Your task to perform on an android device: empty trash in the gmail app Image 0: 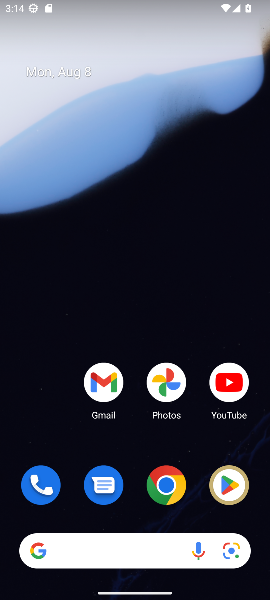
Step 0: drag from (114, 566) to (111, 76)
Your task to perform on an android device: empty trash in the gmail app Image 1: 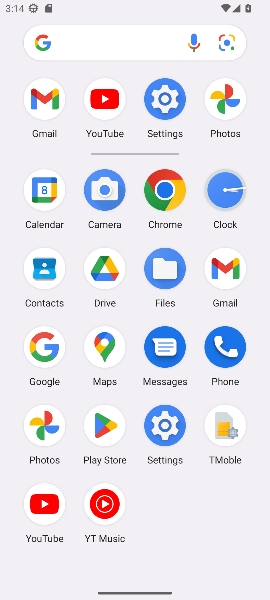
Step 1: click (223, 271)
Your task to perform on an android device: empty trash in the gmail app Image 2: 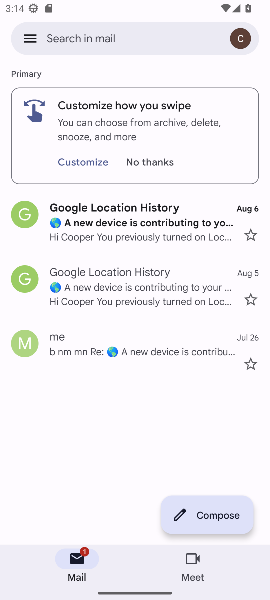
Step 2: click (36, 39)
Your task to perform on an android device: empty trash in the gmail app Image 3: 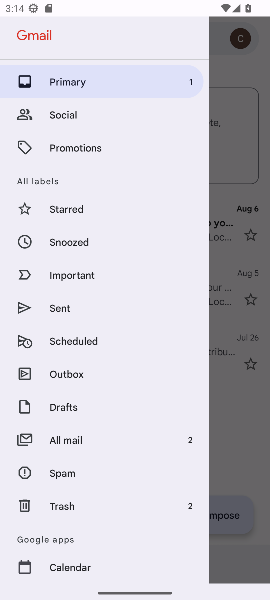
Step 3: click (59, 499)
Your task to perform on an android device: empty trash in the gmail app Image 4: 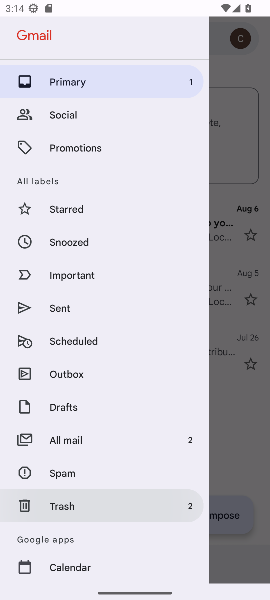
Step 4: click (60, 499)
Your task to perform on an android device: empty trash in the gmail app Image 5: 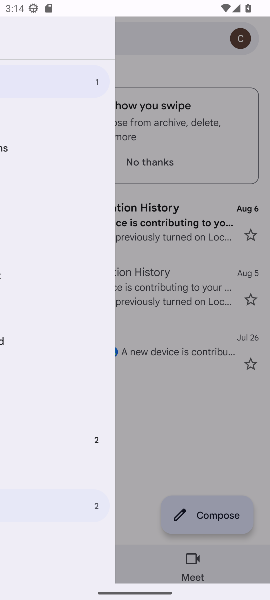
Step 5: click (64, 503)
Your task to perform on an android device: empty trash in the gmail app Image 6: 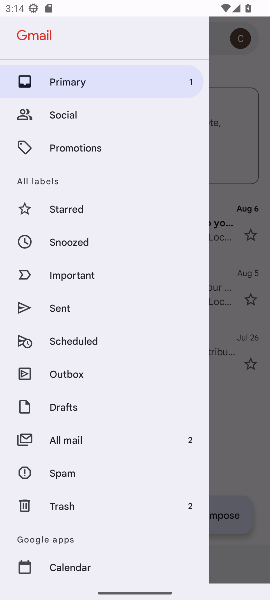
Step 6: click (66, 500)
Your task to perform on an android device: empty trash in the gmail app Image 7: 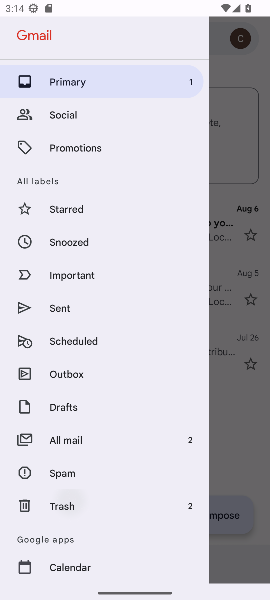
Step 7: click (65, 501)
Your task to perform on an android device: empty trash in the gmail app Image 8: 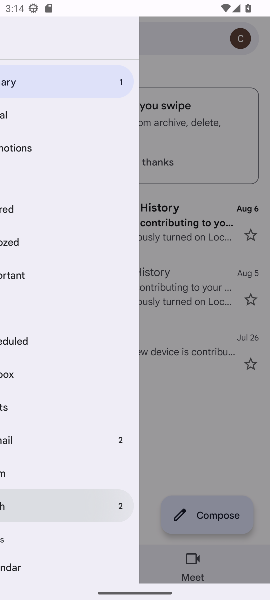
Step 8: click (65, 503)
Your task to perform on an android device: empty trash in the gmail app Image 9: 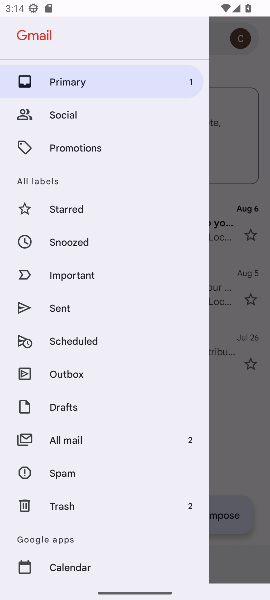
Step 9: click (43, 509)
Your task to perform on an android device: empty trash in the gmail app Image 10: 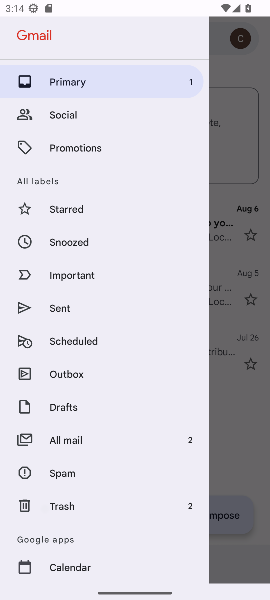
Step 10: click (43, 509)
Your task to perform on an android device: empty trash in the gmail app Image 11: 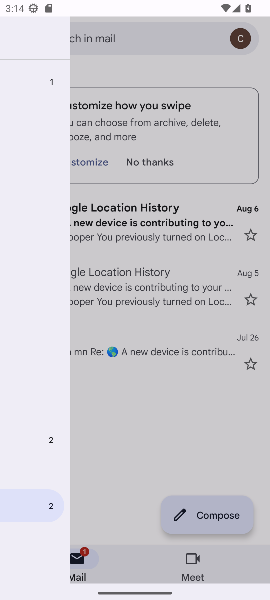
Step 11: click (43, 509)
Your task to perform on an android device: empty trash in the gmail app Image 12: 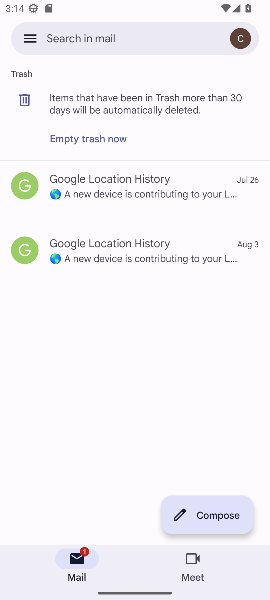
Step 12: task complete